Your task to perform on an android device: toggle wifi Image 0: 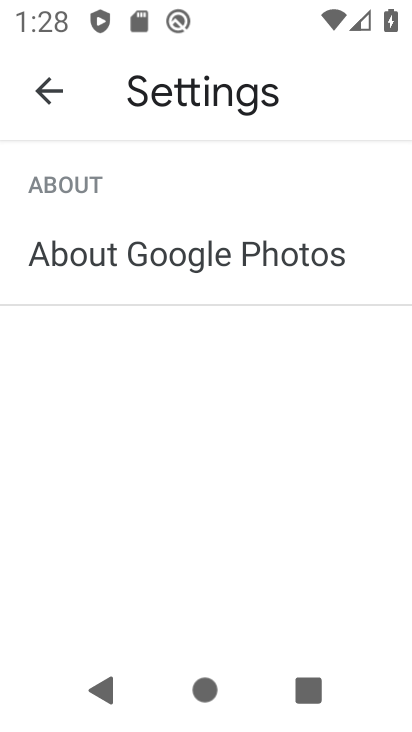
Step 0: press home button
Your task to perform on an android device: toggle wifi Image 1: 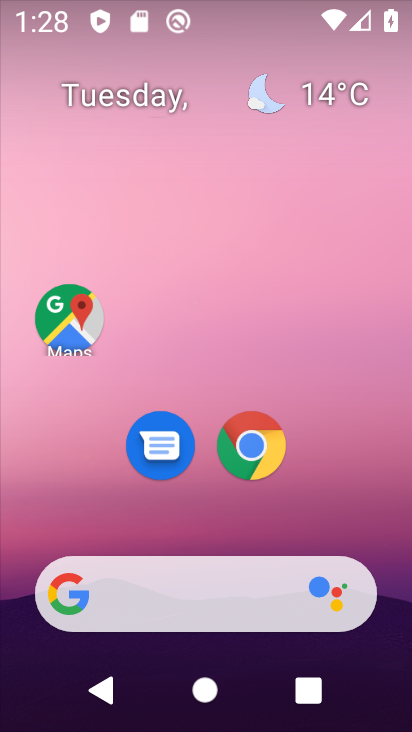
Step 1: drag from (320, 520) to (332, 6)
Your task to perform on an android device: toggle wifi Image 2: 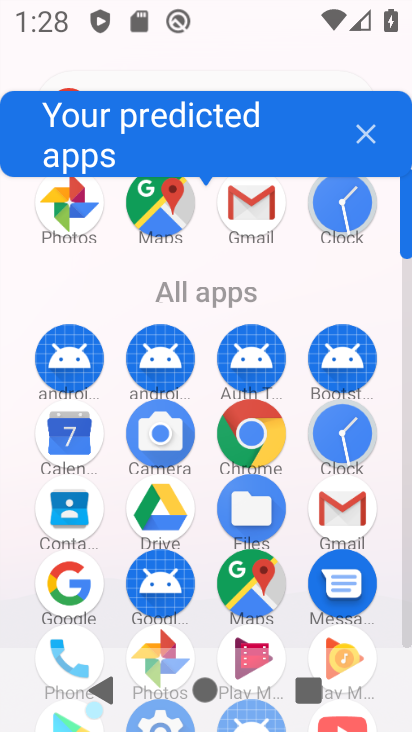
Step 2: drag from (199, 598) to (198, 319)
Your task to perform on an android device: toggle wifi Image 3: 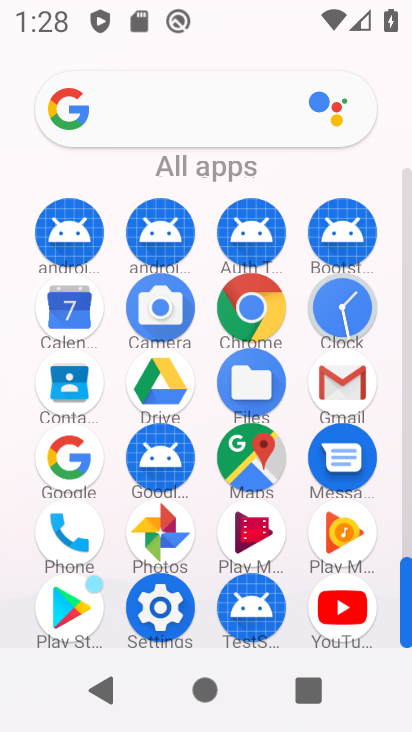
Step 3: click (166, 592)
Your task to perform on an android device: toggle wifi Image 4: 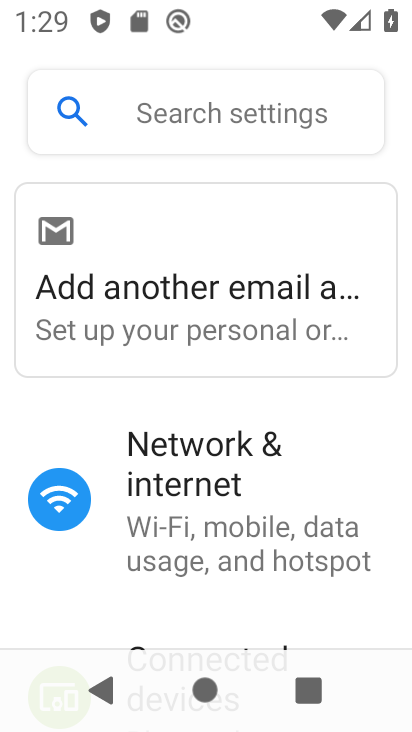
Step 4: click (210, 514)
Your task to perform on an android device: toggle wifi Image 5: 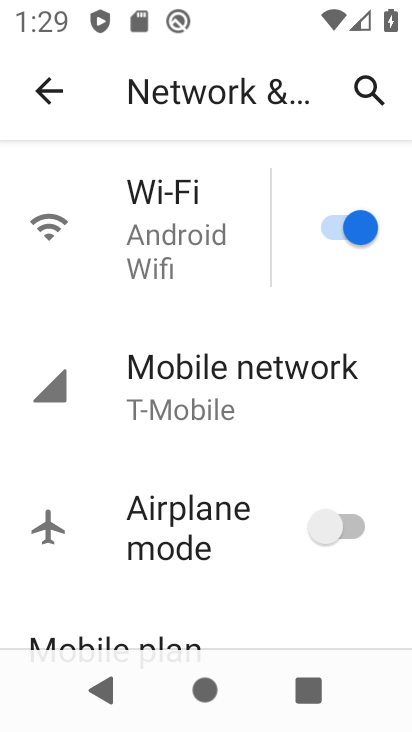
Step 5: click (137, 251)
Your task to perform on an android device: toggle wifi Image 6: 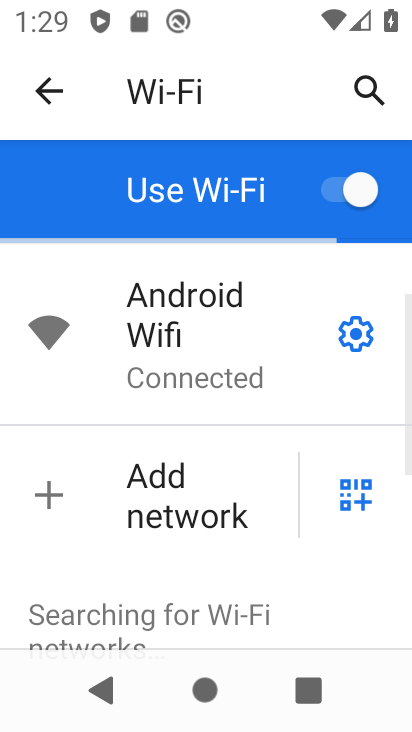
Step 6: click (376, 173)
Your task to perform on an android device: toggle wifi Image 7: 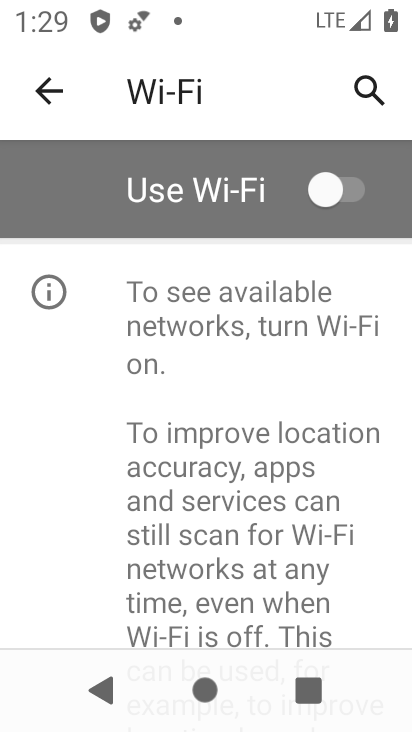
Step 7: task complete